Your task to perform on an android device: Go to eBay Image 0: 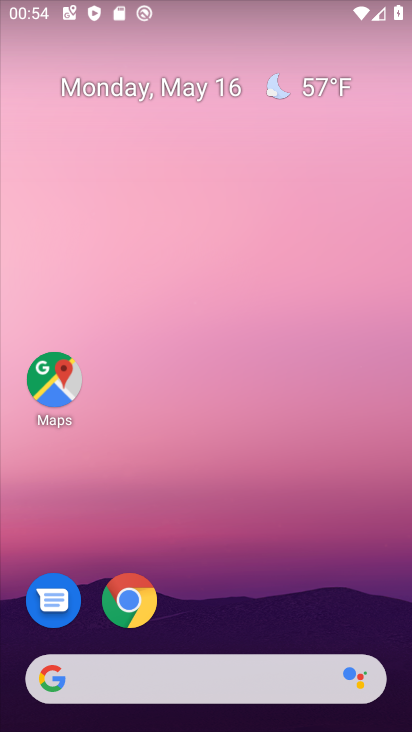
Step 0: click (125, 596)
Your task to perform on an android device: Go to eBay Image 1: 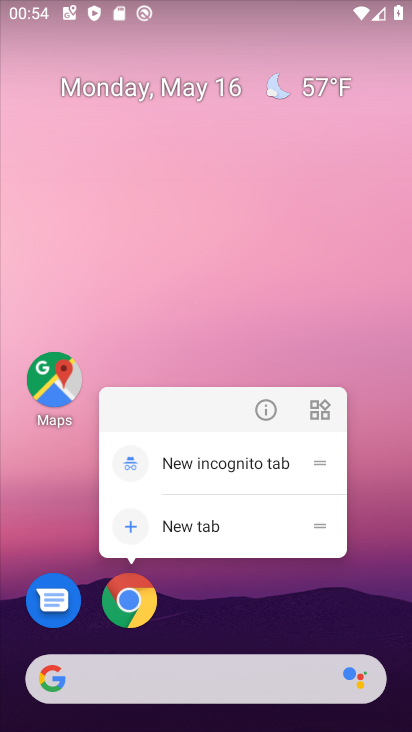
Step 1: click (139, 591)
Your task to perform on an android device: Go to eBay Image 2: 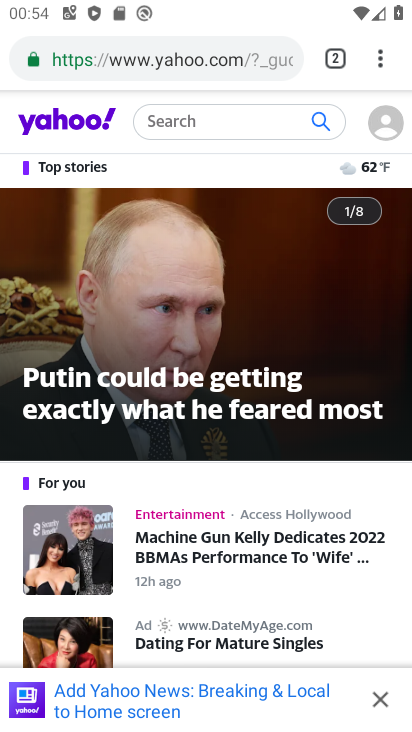
Step 2: click (326, 54)
Your task to perform on an android device: Go to eBay Image 3: 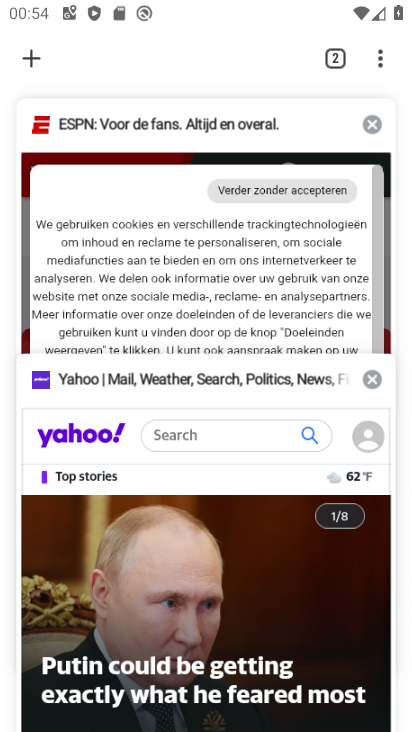
Step 3: click (37, 49)
Your task to perform on an android device: Go to eBay Image 4: 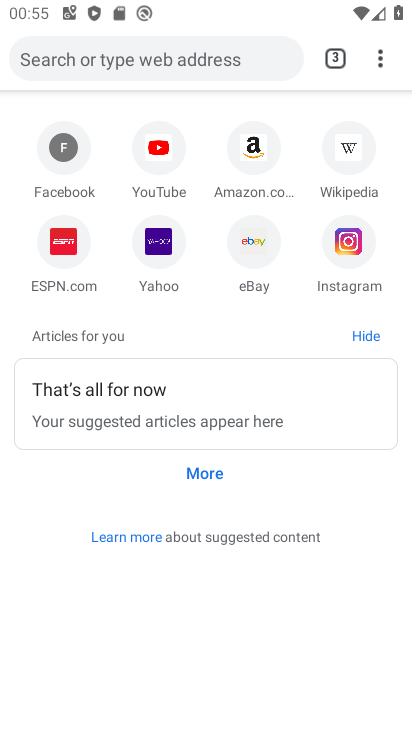
Step 4: click (245, 225)
Your task to perform on an android device: Go to eBay Image 5: 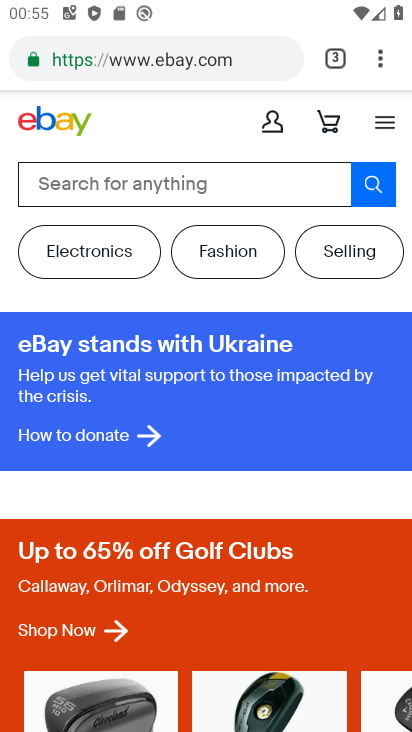
Step 5: task complete